Your task to perform on an android device: refresh tabs in the chrome app Image 0: 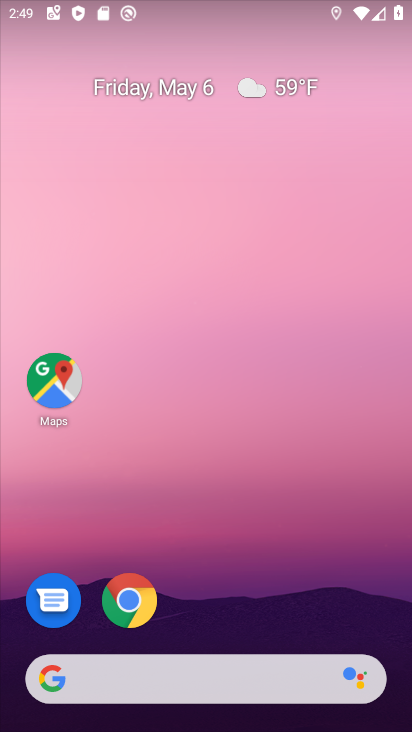
Step 0: click (131, 598)
Your task to perform on an android device: refresh tabs in the chrome app Image 1: 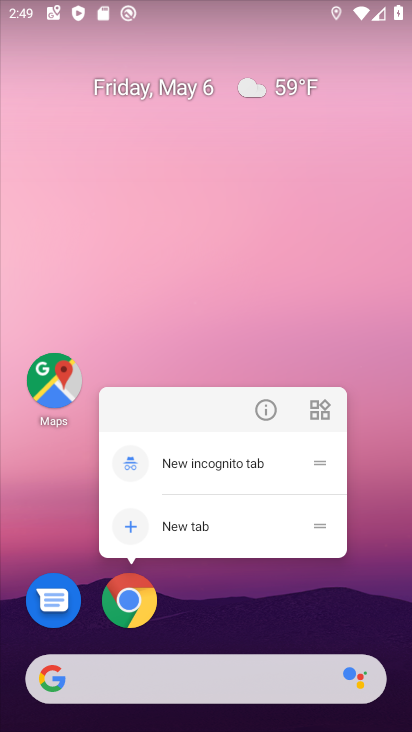
Step 1: click (131, 598)
Your task to perform on an android device: refresh tabs in the chrome app Image 2: 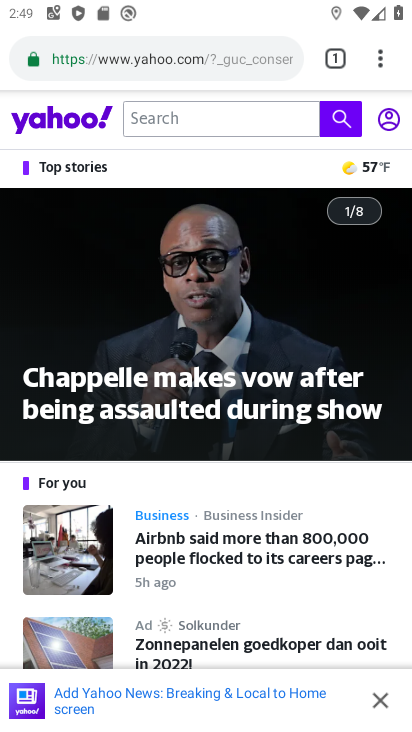
Step 2: click (375, 57)
Your task to perform on an android device: refresh tabs in the chrome app Image 3: 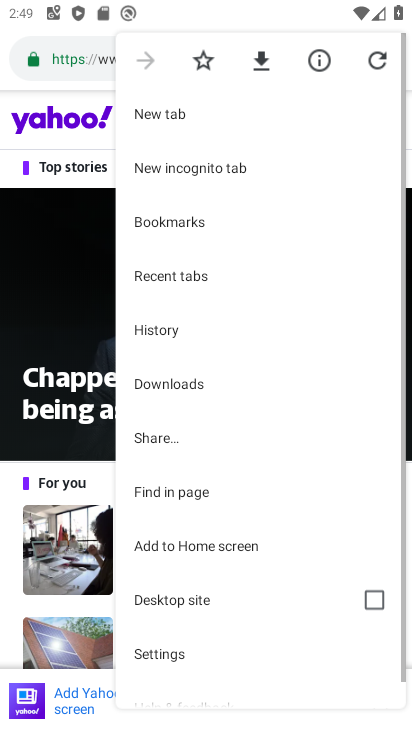
Step 3: click (375, 55)
Your task to perform on an android device: refresh tabs in the chrome app Image 4: 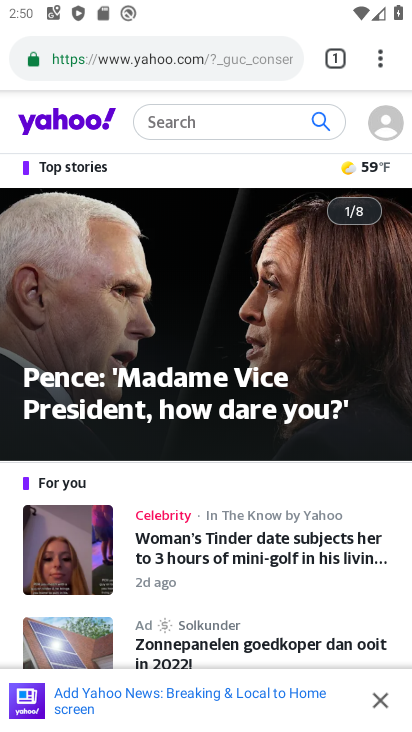
Step 4: task complete